Your task to perform on an android device: open sync settings in chrome Image 0: 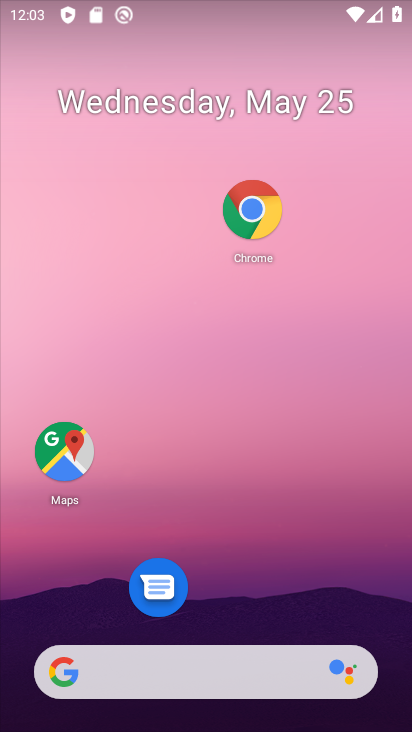
Step 0: press home button
Your task to perform on an android device: open sync settings in chrome Image 1: 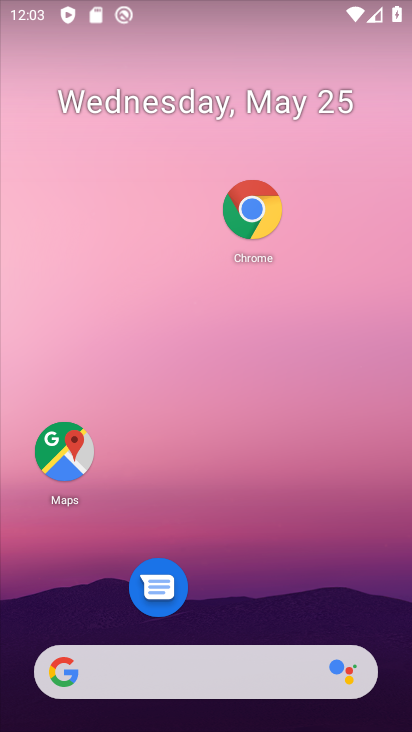
Step 1: click (257, 212)
Your task to perform on an android device: open sync settings in chrome Image 2: 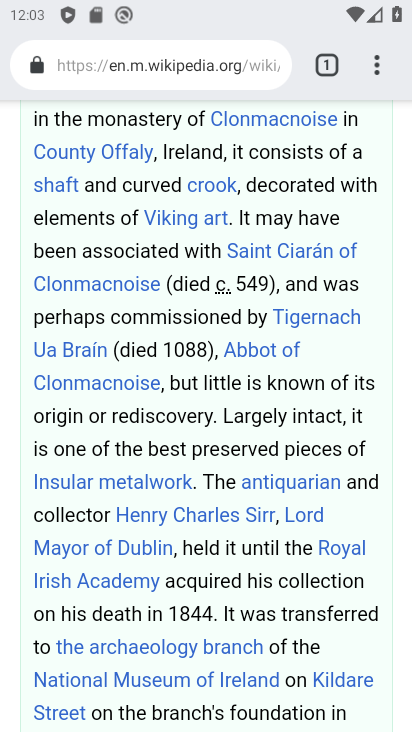
Step 2: click (374, 68)
Your task to perform on an android device: open sync settings in chrome Image 3: 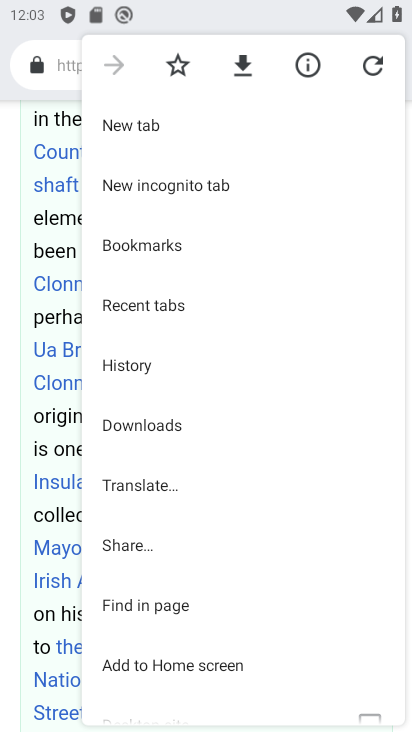
Step 3: drag from (204, 634) to (258, 297)
Your task to perform on an android device: open sync settings in chrome Image 4: 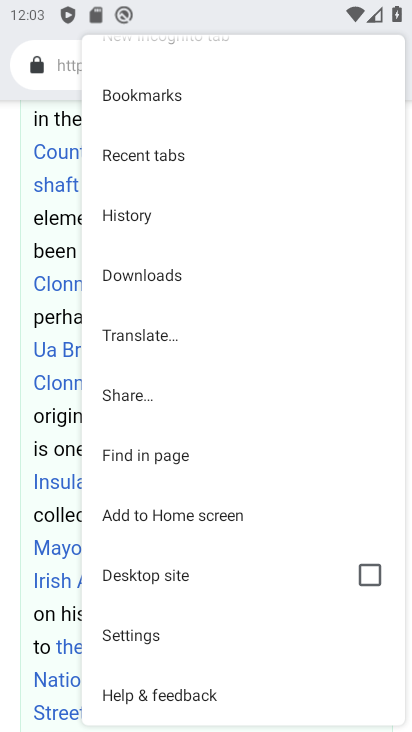
Step 4: click (172, 634)
Your task to perform on an android device: open sync settings in chrome Image 5: 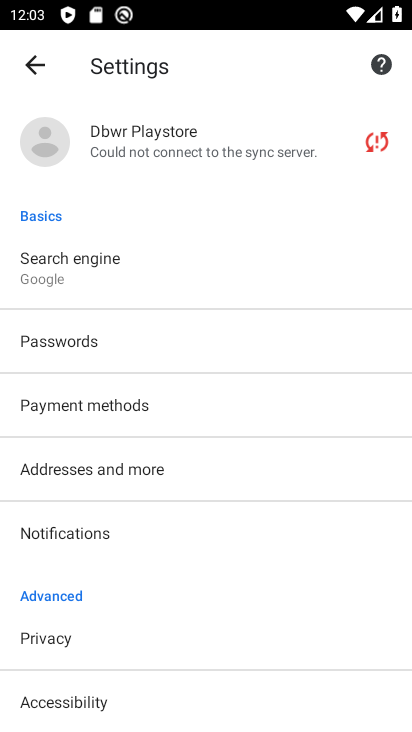
Step 5: click (170, 134)
Your task to perform on an android device: open sync settings in chrome Image 6: 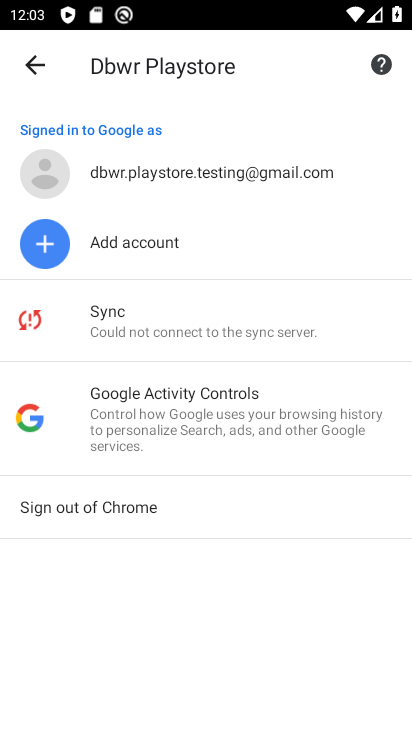
Step 6: click (189, 300)
Your task to perform on an android device: open sync settings in chrome Image 7: 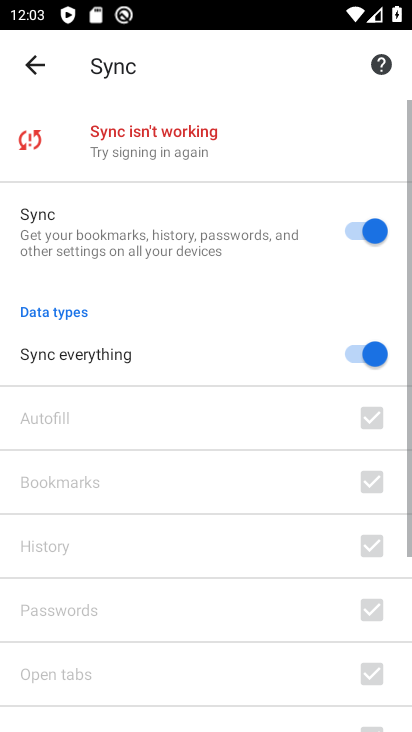
Step 7: task complete